Your task to perform on an android device: change the clock style Image 0: 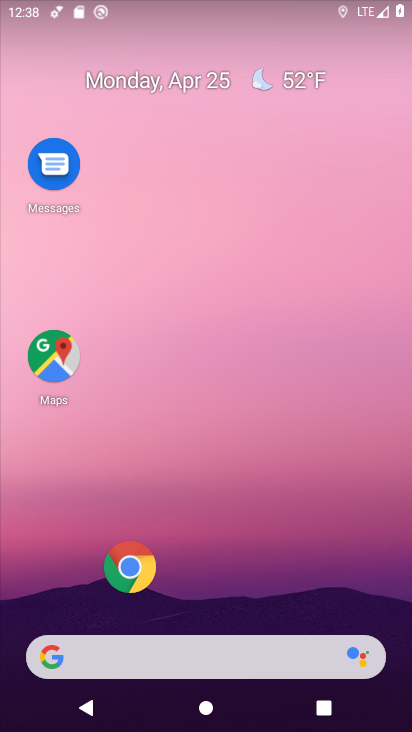
Step 0: drag from (210, 633) to (283, 0)
Your task to perform on an android device: change the clock style Image 1: 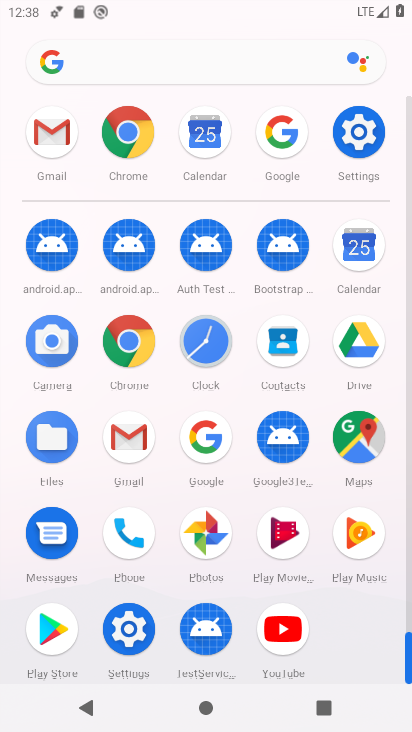
Step 1: click (213, 358)
Your task to perform on an android device: change the clock style Image 2: 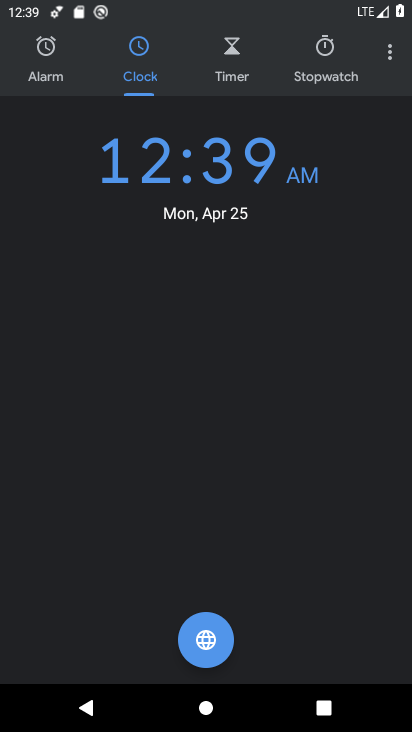
Step 2: click (388, 53)
Your task to perform on an android device: change the clock style Image 3: 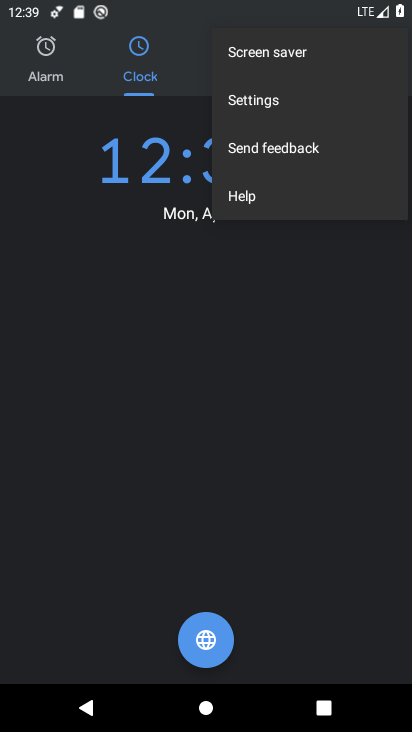
Step 3: click (309, 100)
Your task to perform on an android device: change the clock style Image 4: 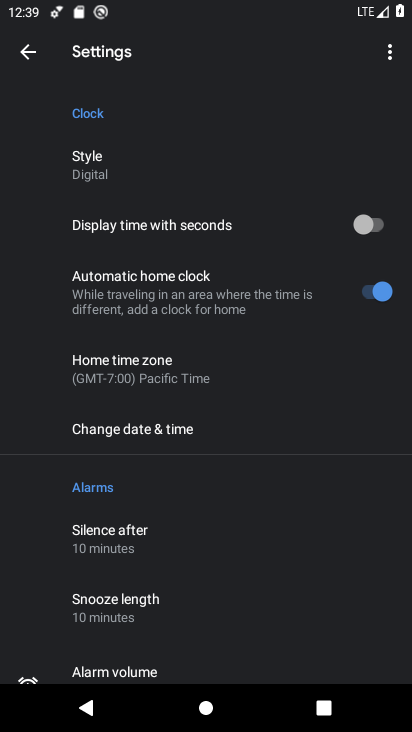
Step 4: click (164, 162)
Your task to perform on an android device: change the clock style Image 5: 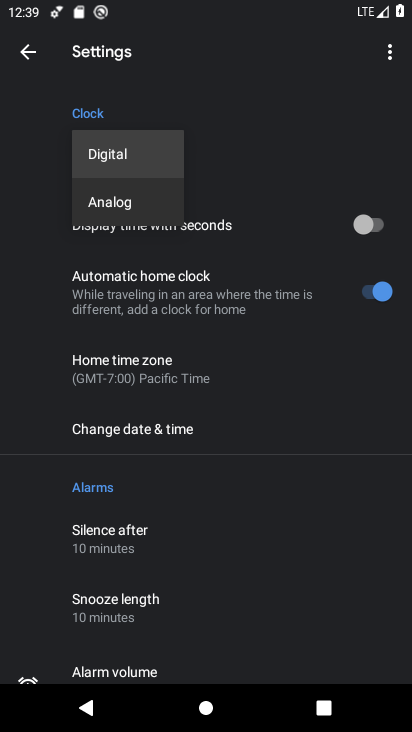
Step 5: click (135, 198)
Your task to perform on an android device: change the clock style Image 6: 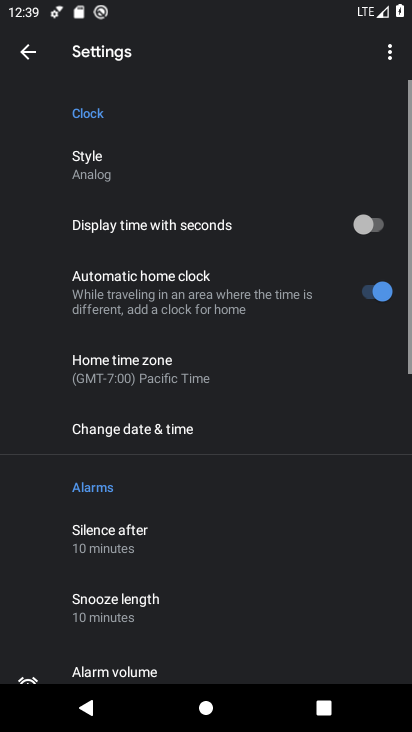
Step 6: task complete